Your task to perform on an android device: Open the stopwatch Image 0: 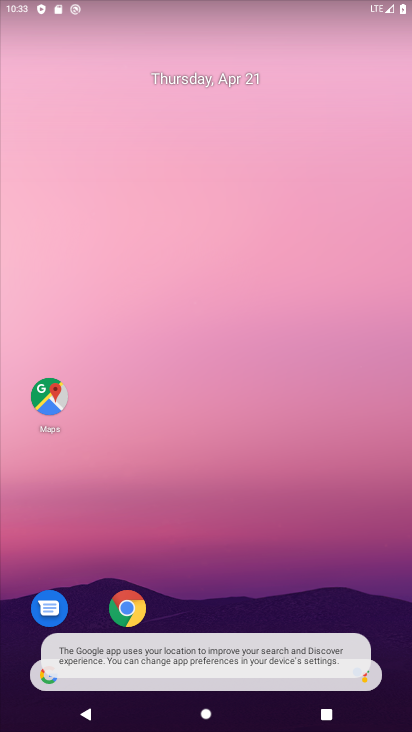
Step 0: drag from (201, 468) to (167, 201)
Your task to perform on an android device: Open the stopwatch Image 1: 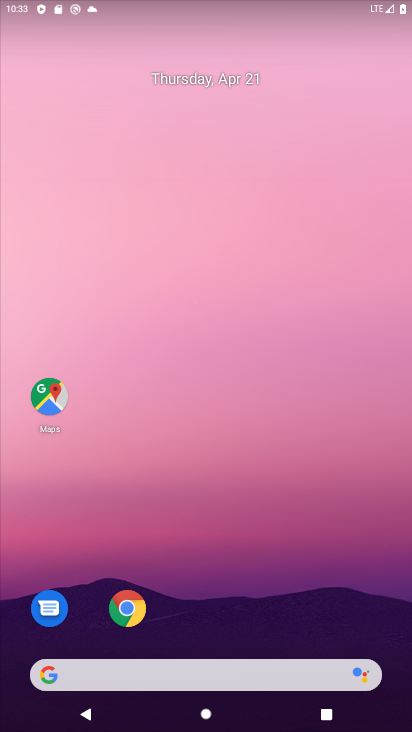
Step 1: drag from (249, 488) to (164, 37)
Your task to perform on an android device: Open the stopwatch Image 2: 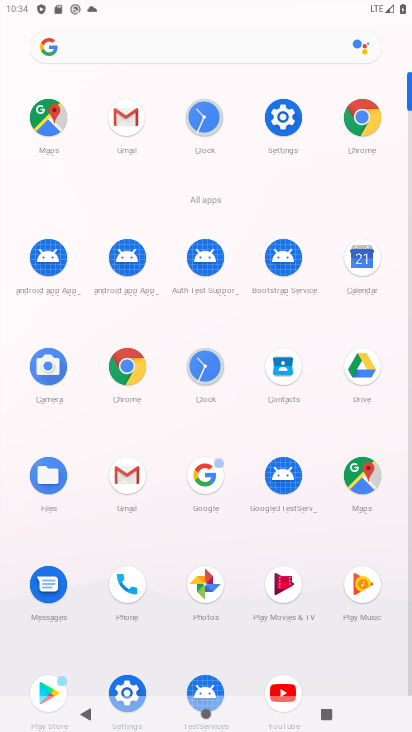
Step 2: click (200, 364)
Your task to perform on an android device: Open the stopwatch Image 3: 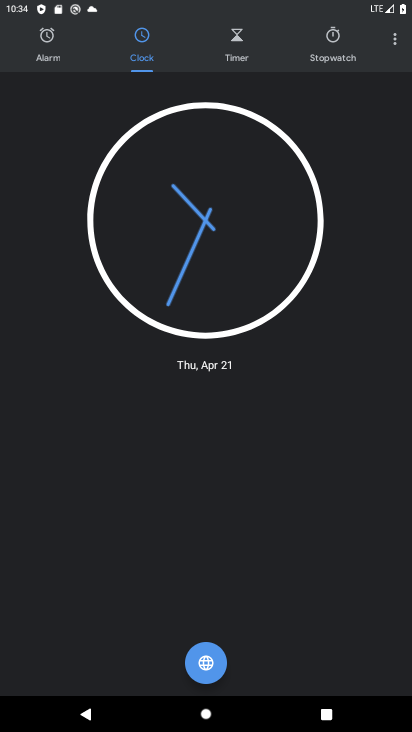
Step 3: click (335, 38)
Your task to perform on an android device: Open the stopwatch Image 4: 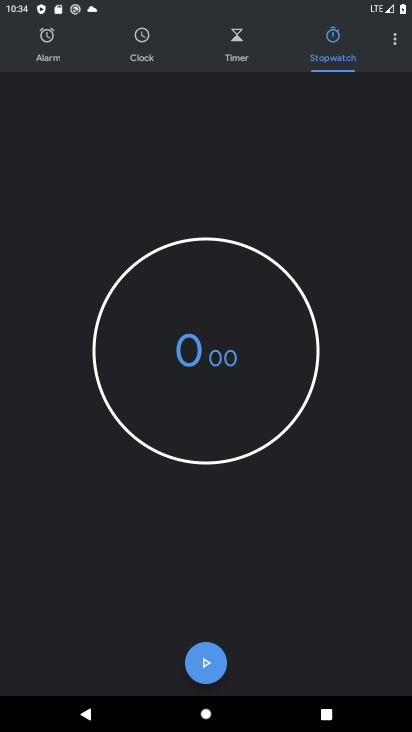
Step 4: task complete